Your task to perform on an android device: set the stopwatch Image 0: 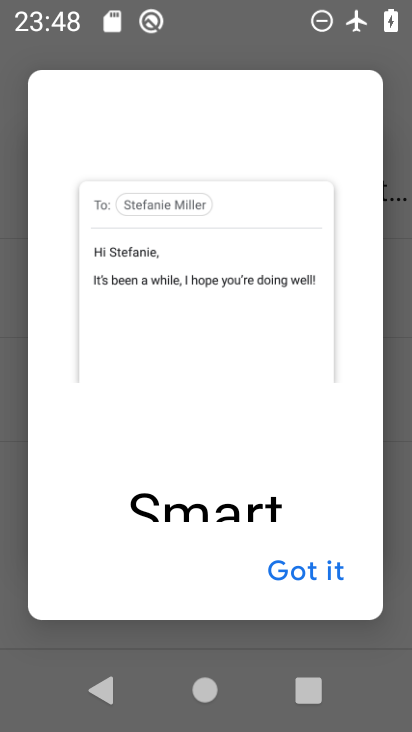
Step 0: press home button
Your task to perform on an android device: set the stopwatch Image 1: 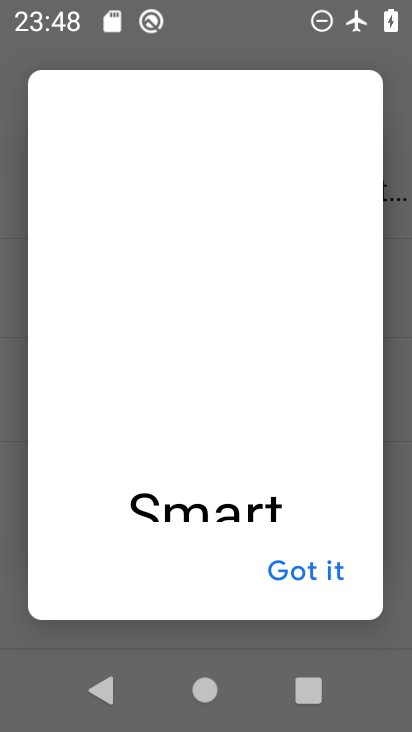
Step 1: drag from (143, 556) to (314, 0)
Your task to perform on an android device: set the stopwatch Image 2: 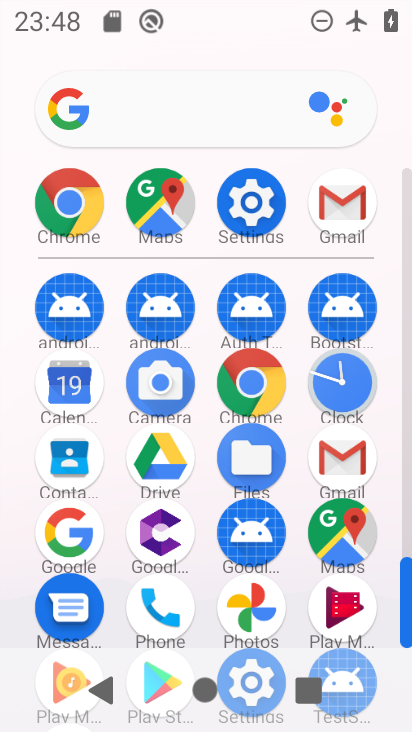
Step 2: click (352, 392)
Your task to perform on an android device: set the stopwatch Image 3: 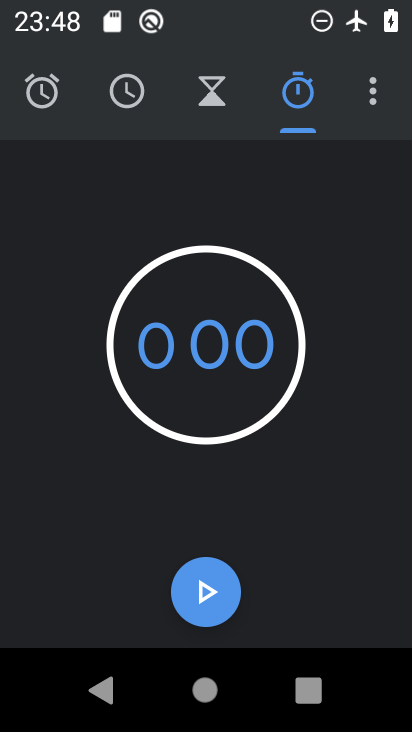
Step 3: click (202, 597)
Your task to perform on an android device: set the stopwatch Image 4: 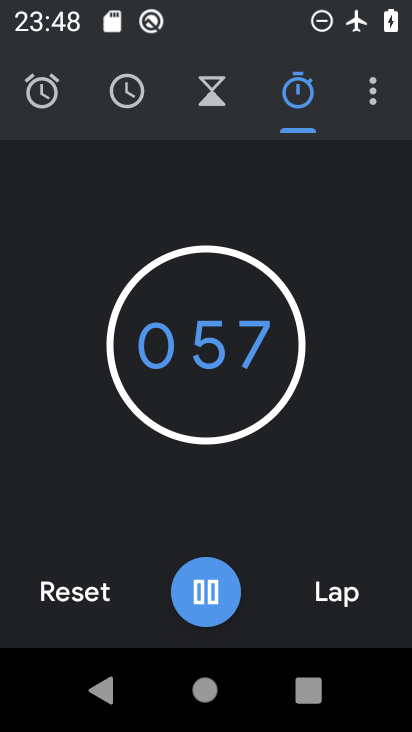
Step 4: task complete